Your task to perform on an android device: create a new album in the google photos Image 0: 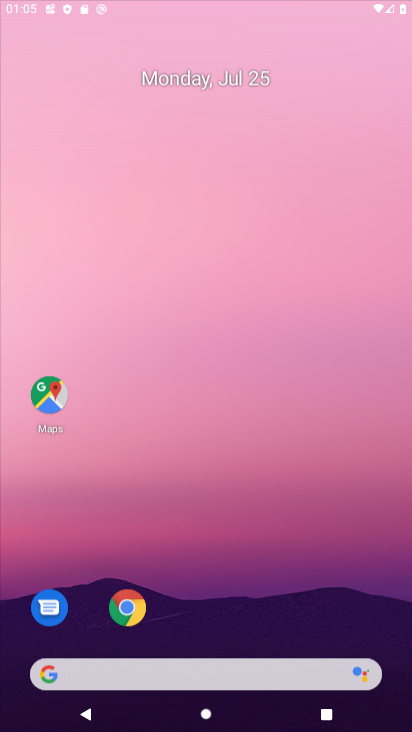
Step 0: click (165, 157)
Your task to perform on an android device: create a new album in the google photos Image 1: 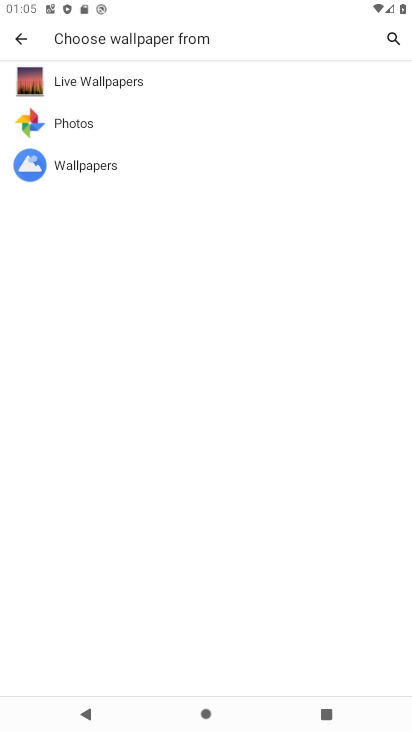
Step 1: press home button
Your task to perform on an android device: create a new album in the google photos Image 2: 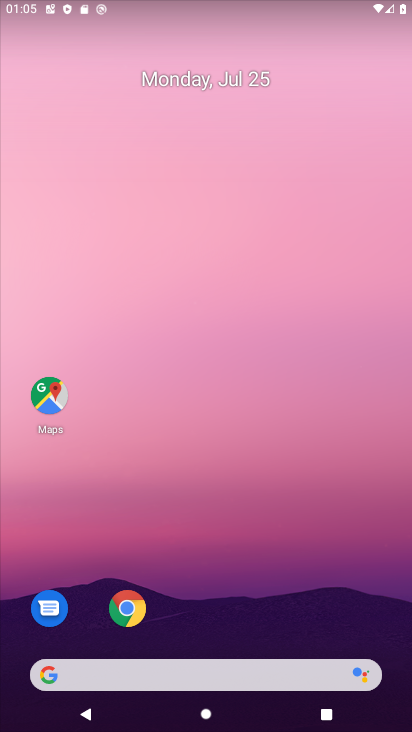
Step 2: drag from (213, 646) to (210, 161)
Your task to perform on an android device: create a new album in the google photos Image 3: 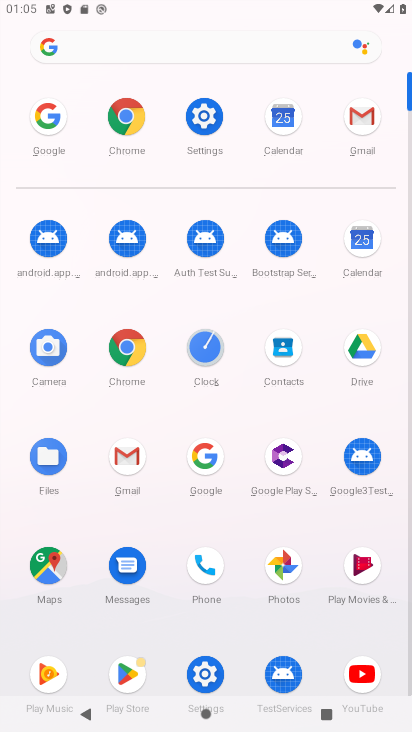
Step 3: click (315, 583)
Your task to perform on an android device: create a new album in the google photos Image 4: 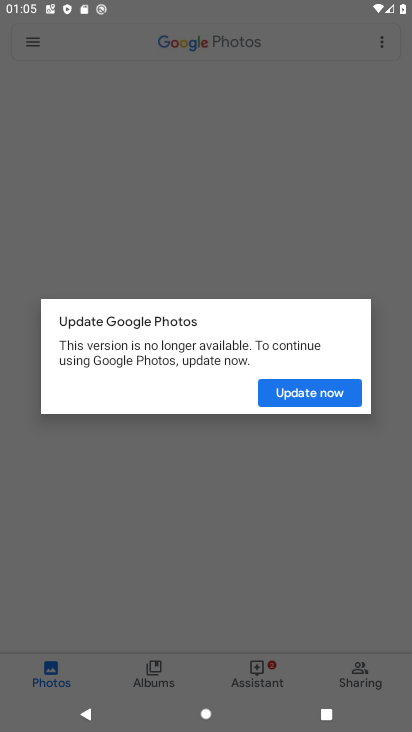
Step 4: click (301, 403)
Your task to perform on an android device: create a new album in the google photos Image 5: 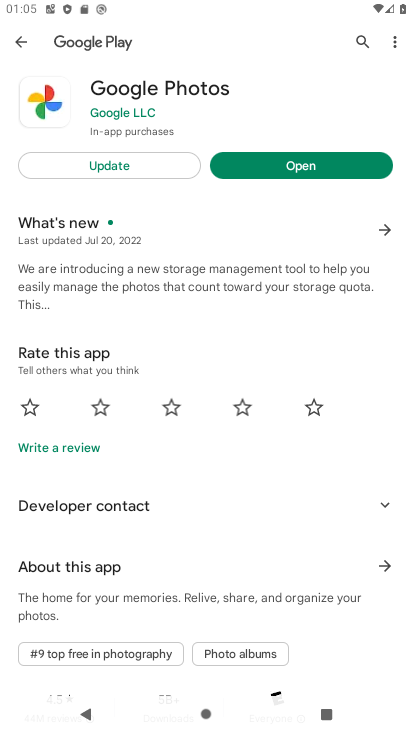
Step 5: click (114, 157)
Your task to perform on an android device: create a new album in the google photos Image 6: 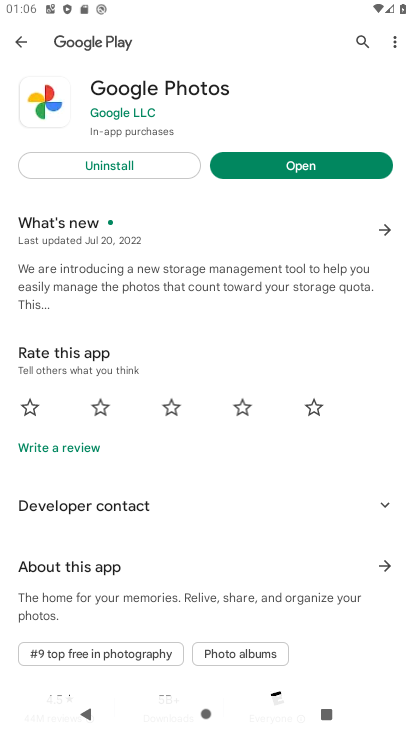
Step 6: click (331, 174)
Your task to perform on an android device: create a new album in the google photos Image 7: 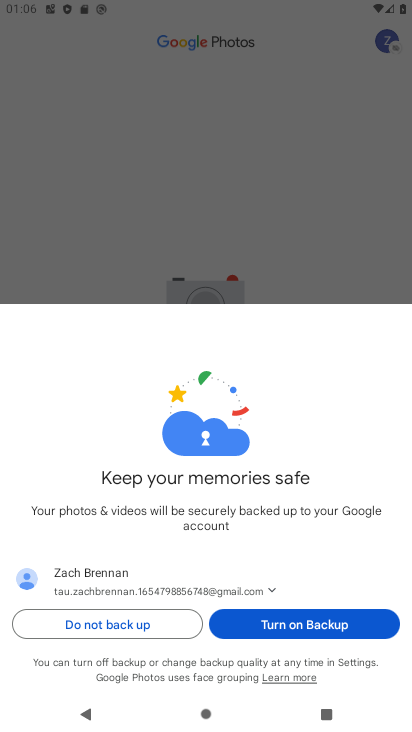
Step 7: click (170, 631)
Your task to perform on an android device: create a new album in the google photos Image 8: 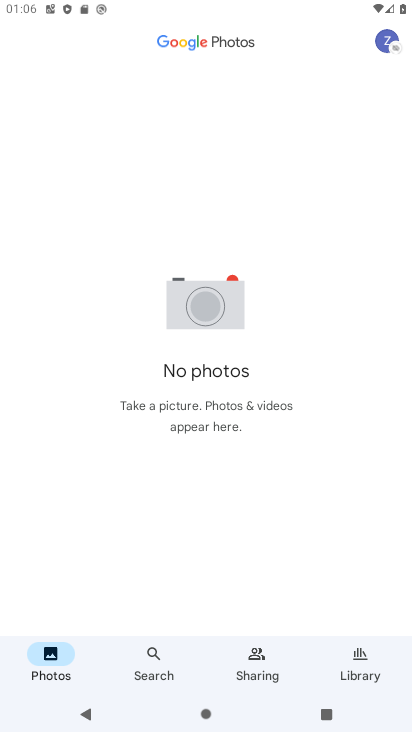
Step 8: task complete